Your task to perform on an android device: Is it going to rain this weekend? Image 0: 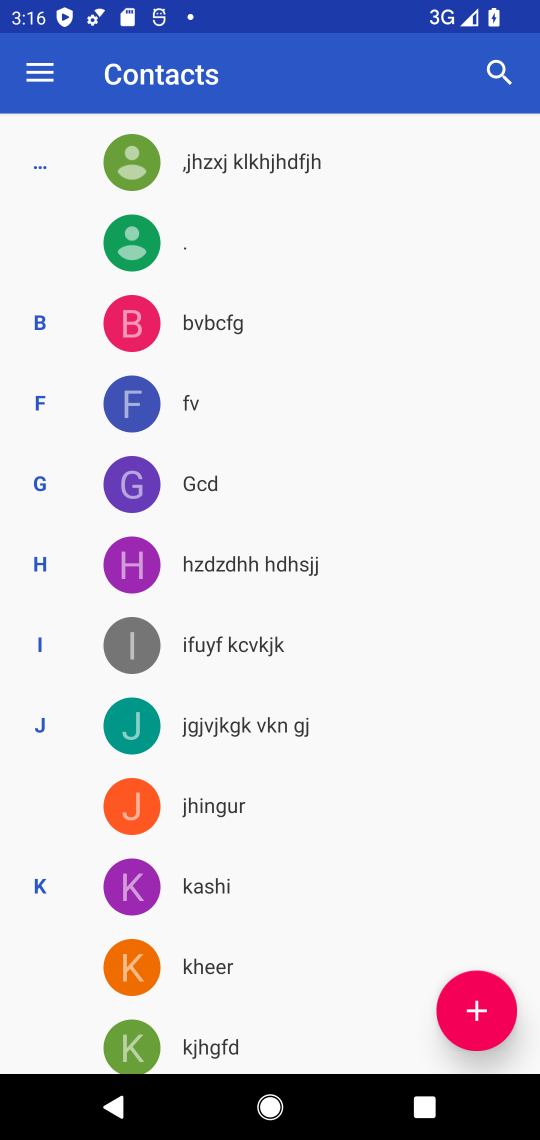
Step 0: press home button
Your task to perform on an android device: Is it going to rain this weekend? Image 1: 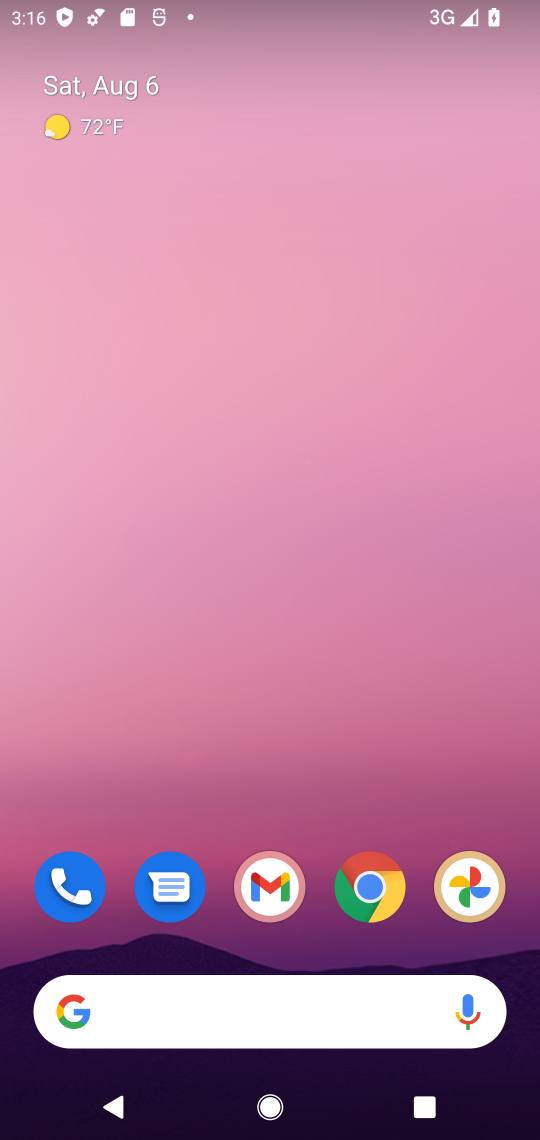
Step 1: click (321, 1012)
Your task to perform on an android device: Is it going to rain this weekend? Image 2: 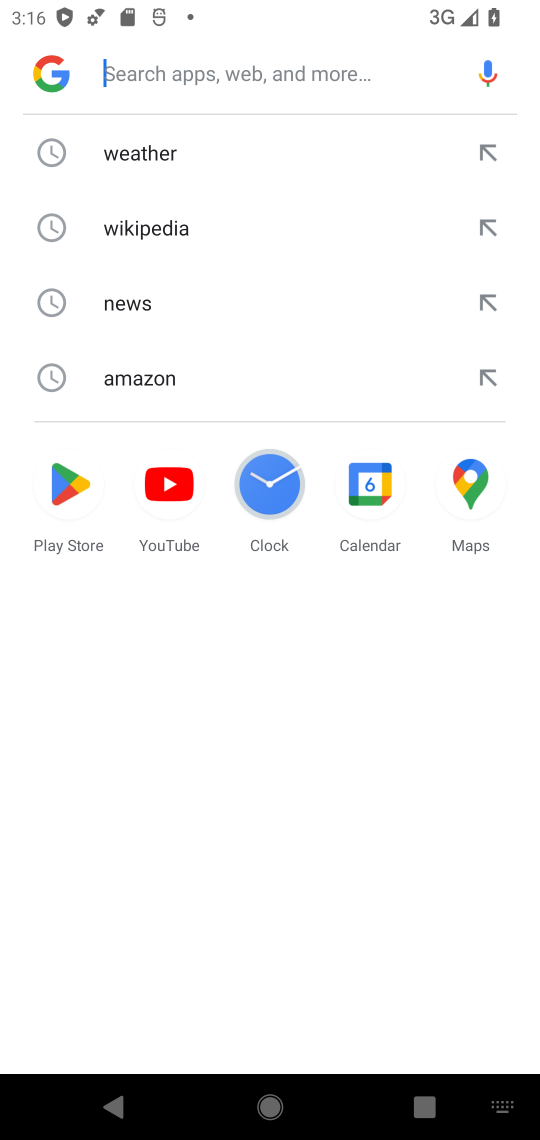
Step 2: click (159, 148)
Your task to perform on an android device: Is it going to rain this weekend? Image 3: 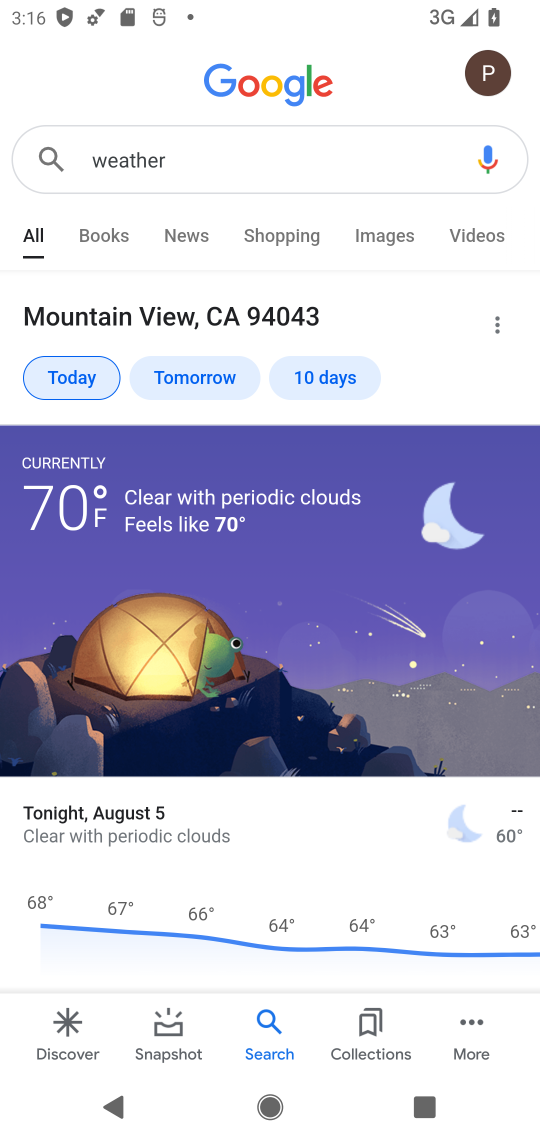
Step 3: click (337, 377)
Your task to perform on an android device: Is it going to rain this weekend? Image 4: 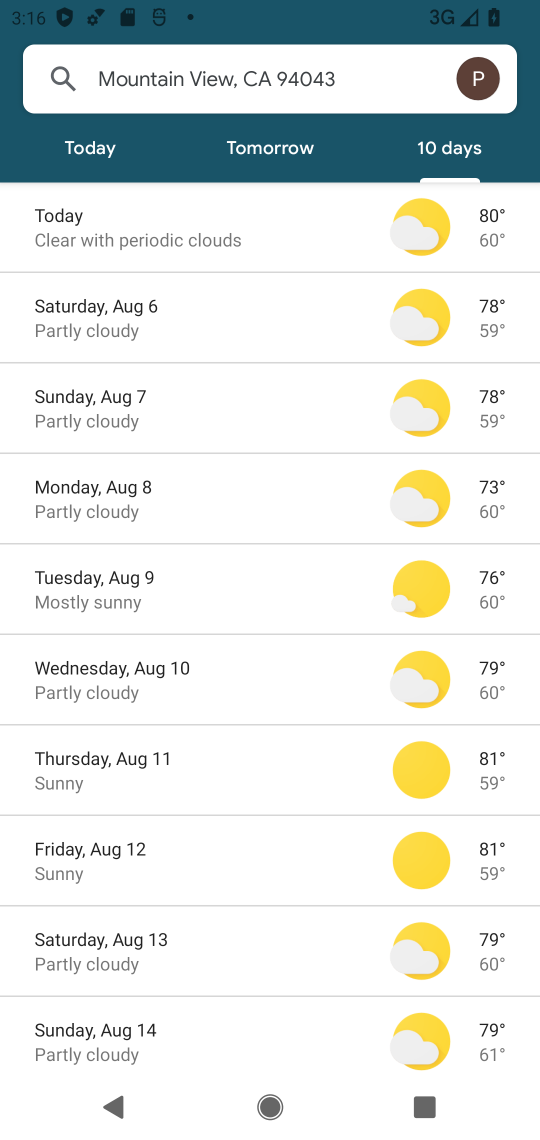
Step 4: click (203, 324)
Your task to perform on an android device: Is it going to rain this weekend? Image 5: 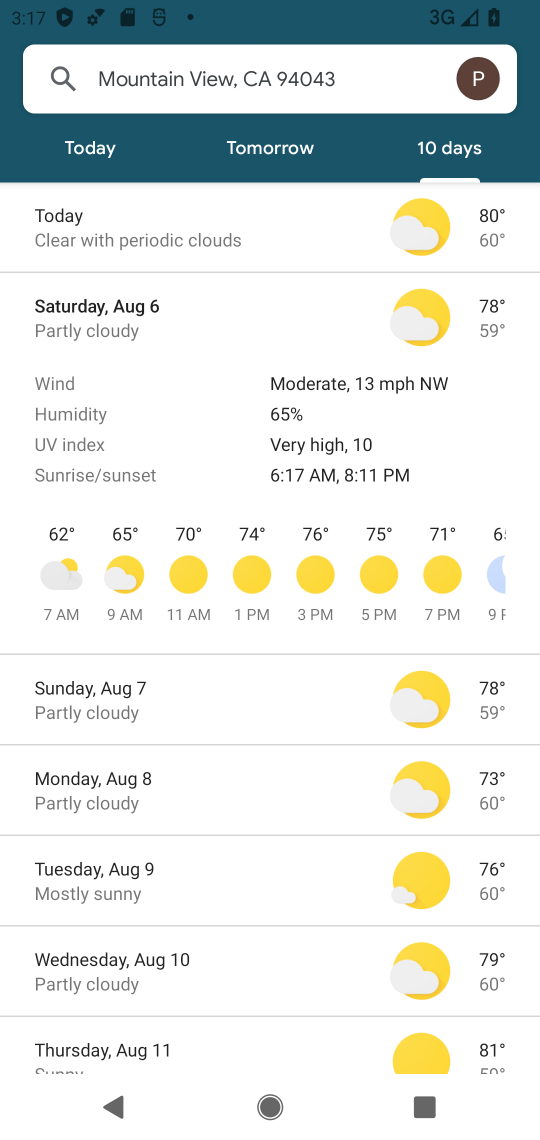
Step 5: task complete